Your task to perform on an android device: Show me recent news Image 0: 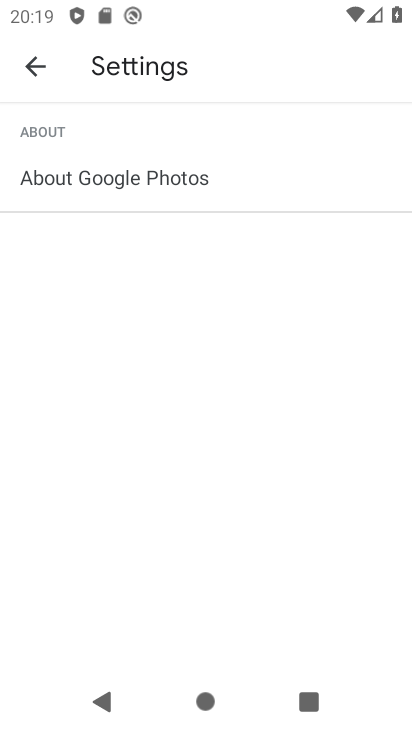
Step 0: press home button
Your task to perform on an android device: Show me recent news Image 1: 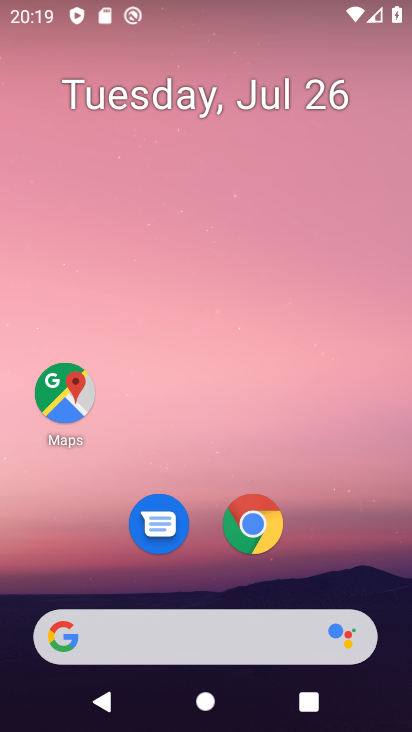
Step 1: click (144, 625)
Your task to perform on an android device: Show me recent news Image 2: 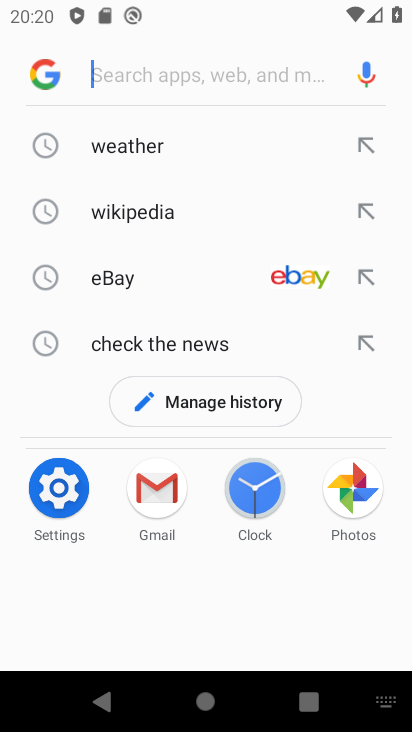
Step 2: type "recent news"
Your task to perform on an android device: Show me recent news Image 3: 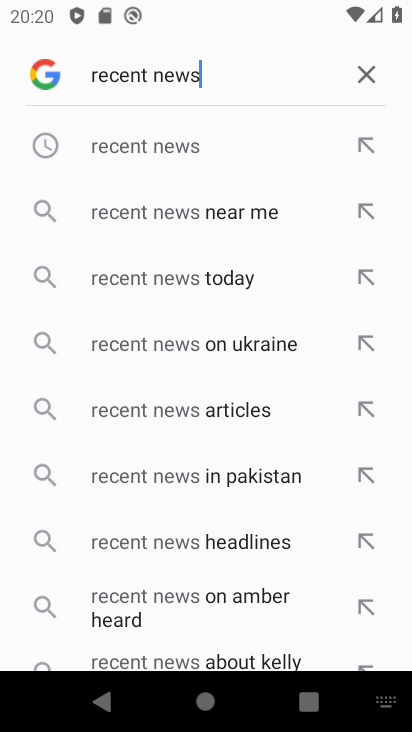
Step 3: click (194, 151)
Your task to perform on an android device: Show me recent news Image 4: 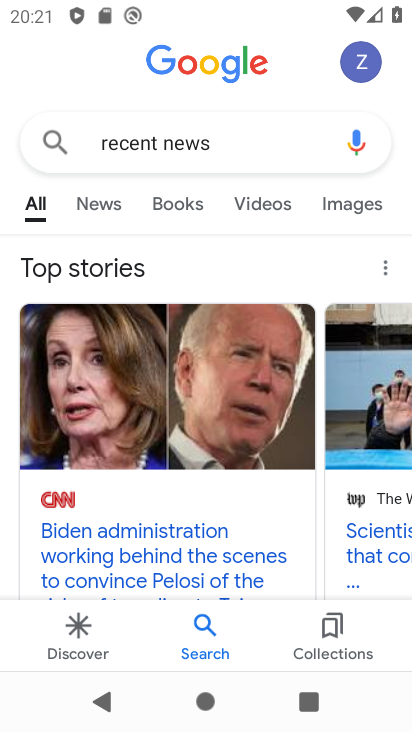
Step 4: click (105, 196)
Your task to perform on an android device: Show me recent news Image 5: 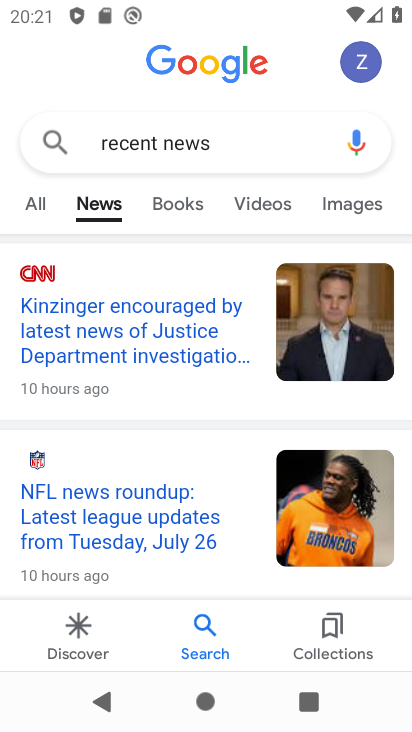
Step 5: task complete